Your task to perform on an android device: Open the calendar and show me this week's events? Image 0: 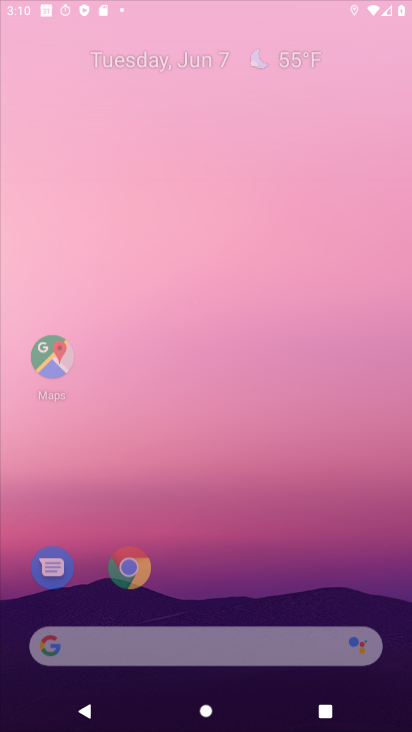
Step 0: press home button
Your task to perform on an android device: Open the calendar and show me this week's events? Image 1: 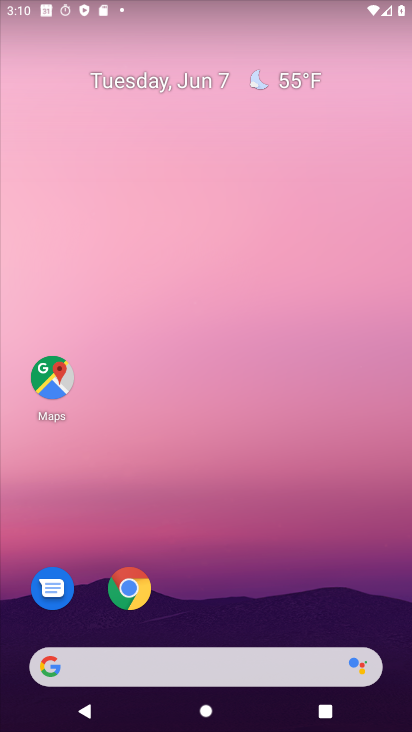
Step 1: drag from (235, 627) to (328, 13)
Your task to perform on an android device: Open the calendar and show me this week's events? Image 2: 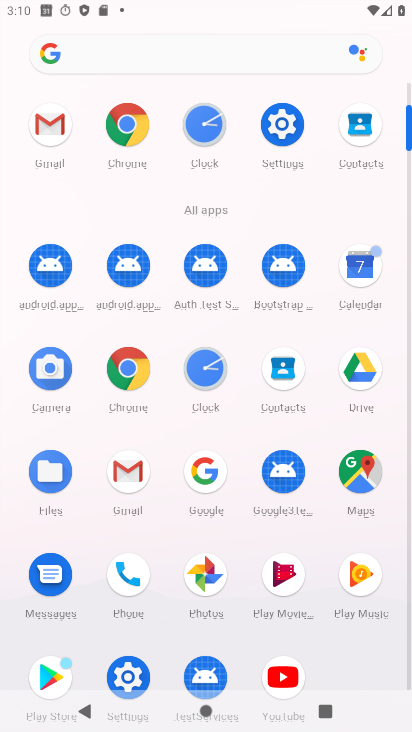
Step 2: click (371, 275)
Your task to perform on an android device: Open the calendar and show me this week's events? Image 3: 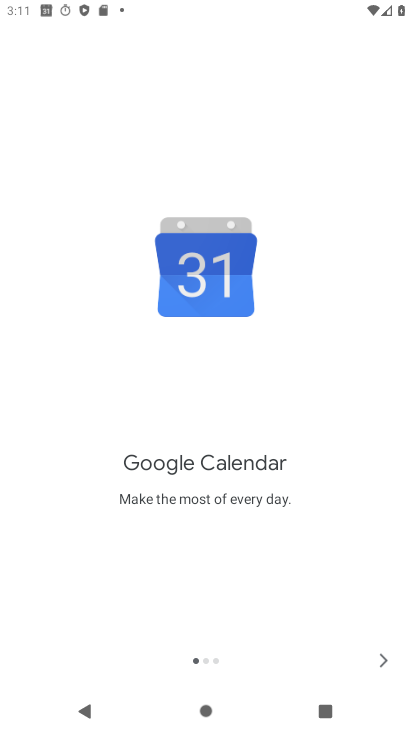
Step 3: click (383, 664)
Your task to perform on an android device: Open the calendar and show me this week's events? Image 4: 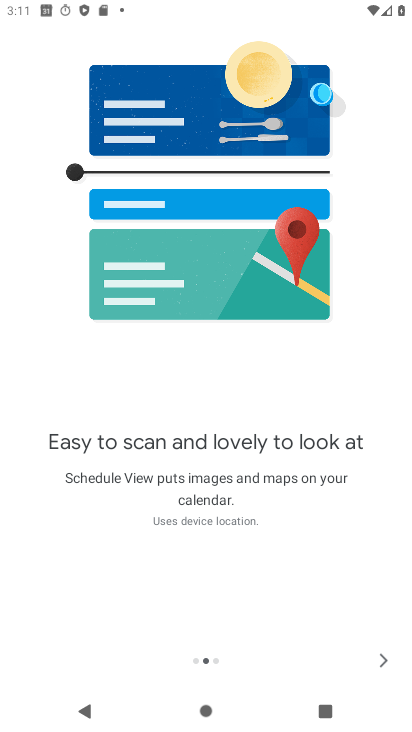
Step 4: click (383, 664)
Your task to perform on an android device: Open the calendar and show me this week's events? Image 5: 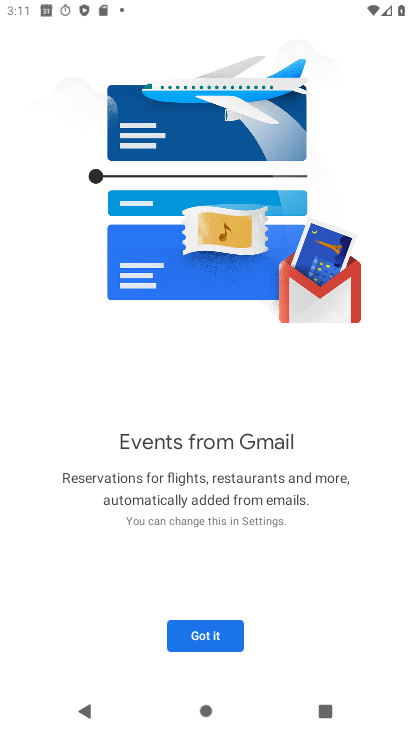
Step 5: click (197, 632)
Your task to perform on an android device: Open the calendar and show me this week's events? Image 6: 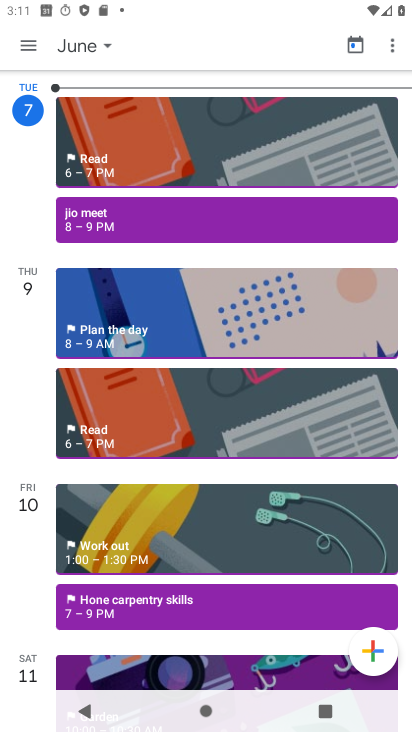
Step 6: task complete